Your task to perform on an android device: empty trash in google photos Image 0: 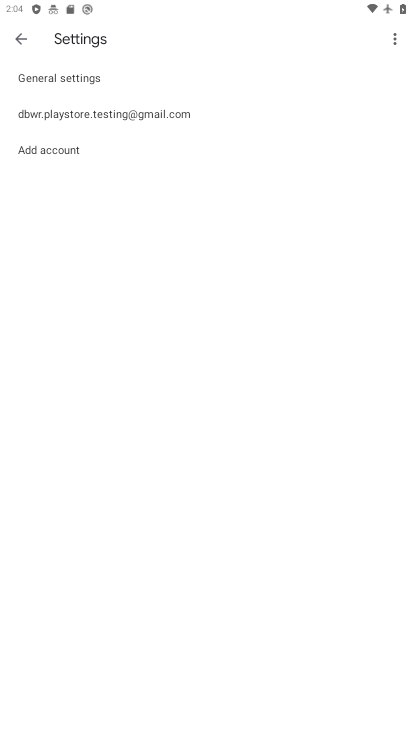
Step 0: press home button
Your task to perform on an android device: empty trash in google photos Image 1: 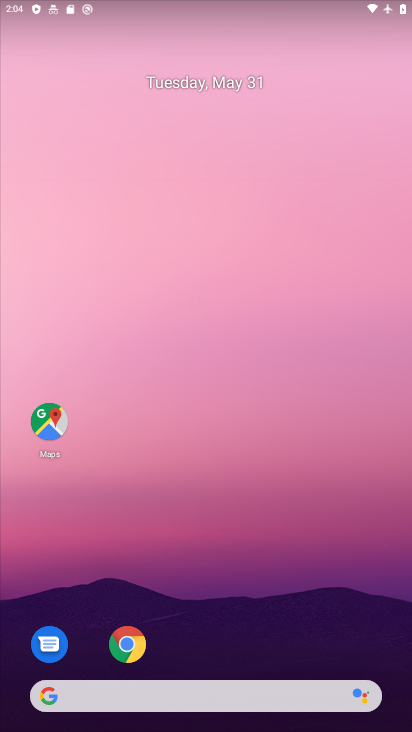
Step 1: drag from (256, 608) to (242, 160)
Your task to perform on an android device: empty trash in google photos Image 2: 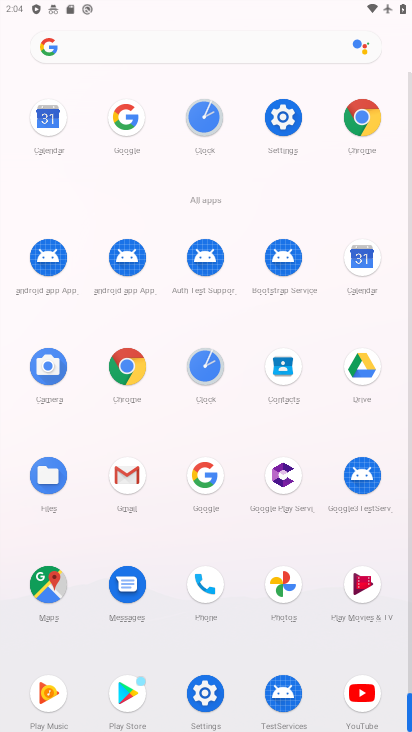
Step 2: click (288, 576)
Your task to perform on an android device: empty trash in google photos Image 3: 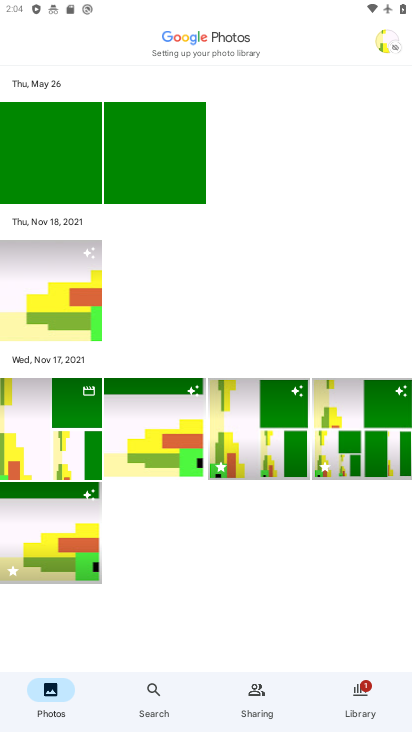
Step 3: click (363, 713)
Your task to perform on an android device: empty trash in google photos Image 4: 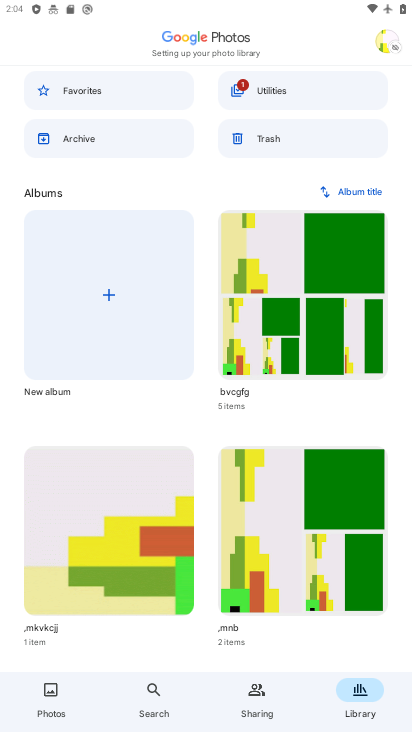
Step 4: click (289, 146)
Your task to perform on an android device: empty trash in google photos Image 5: 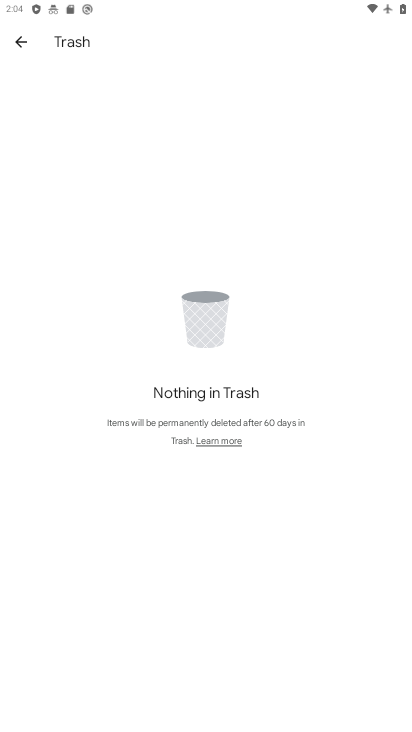
Step 5: task complete